Your task to perform on an android device: turn pop-ups on in chrome Image 0: 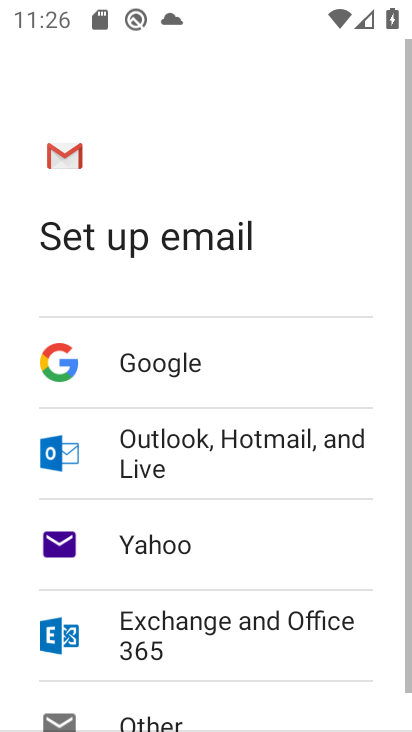
Step 0: press home button
Your task to perform on an android device: turn pop-ups on in chrome Image 1: 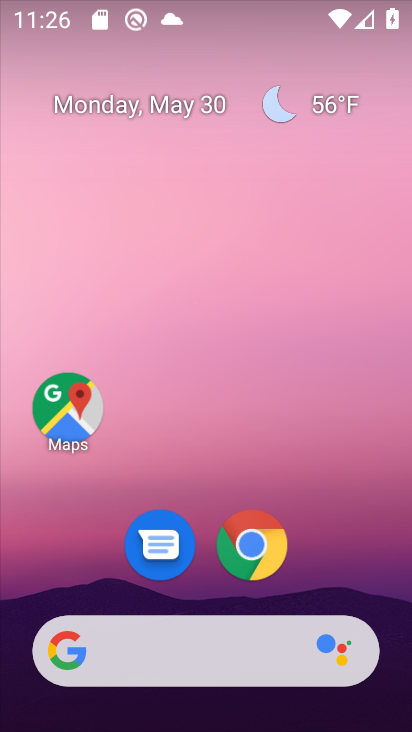
Step 1: click (277, 564)
Your task to perform on an android device: turn pop-ups on in chrome Image 2: 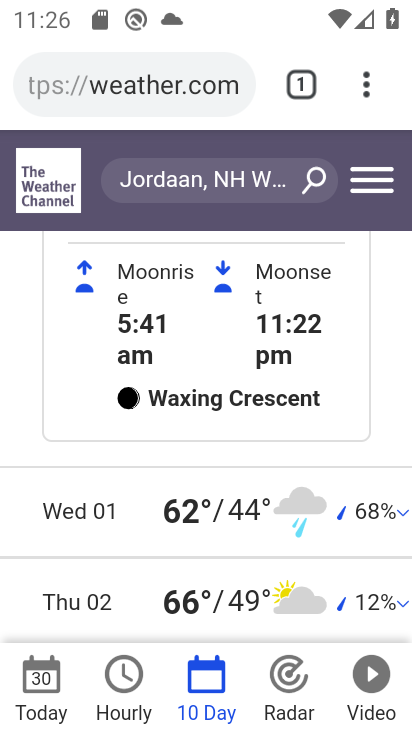
Step 2: drag from (380, 113) to (254, 615)
Your task to perform on an android device: turn pop-ups on in chrome Image 3: 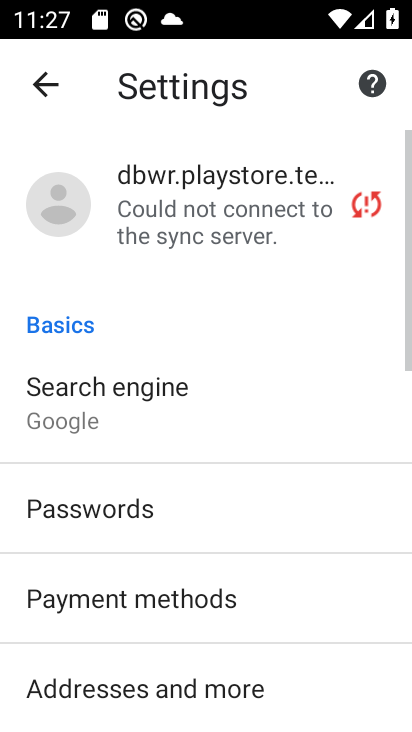
Step 3: drag from (254, 615) to (312, 249)
Your task to perform on an android device: turn pop-ups on in chrome Image 4: 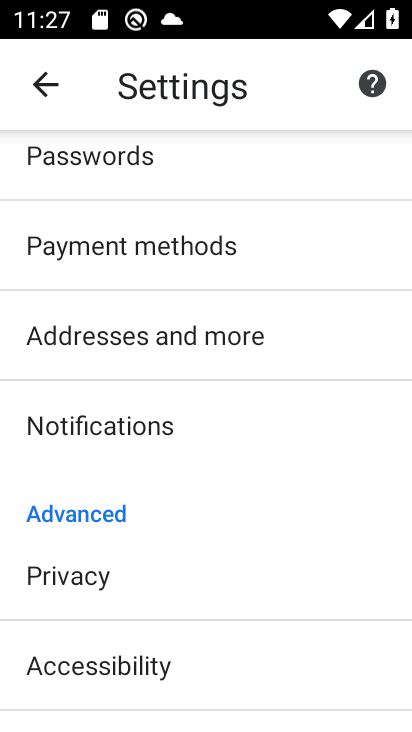
Step 4: drag from (186, 637) to (291, 282)
Your task to perform on an android device: turn pop-ups on in chrome Image 5: 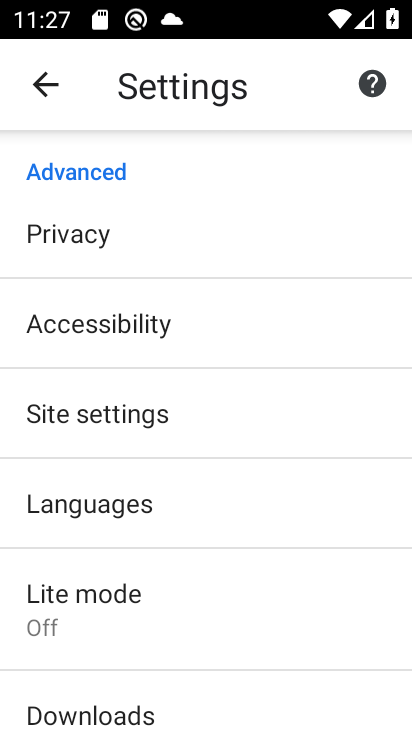
Step 5: click (223, 418)
Your task to perform on an android device: turn pop-ups on in chrome Image 6: 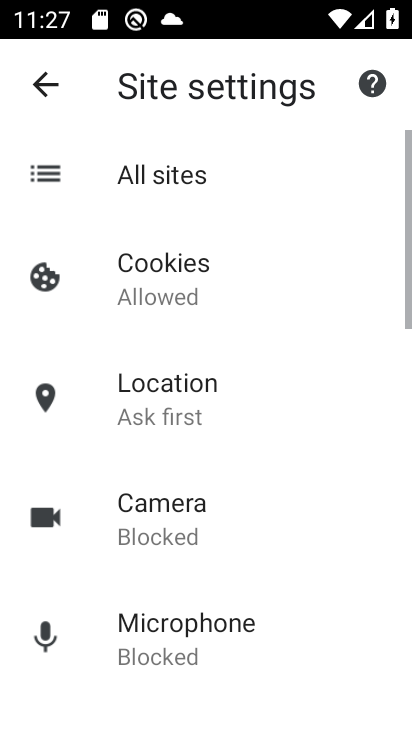
Step 6: drag from (157, 595) to (292, 172)
Your task to perform on an android device: turn pop-ups on in chrome Image 7: 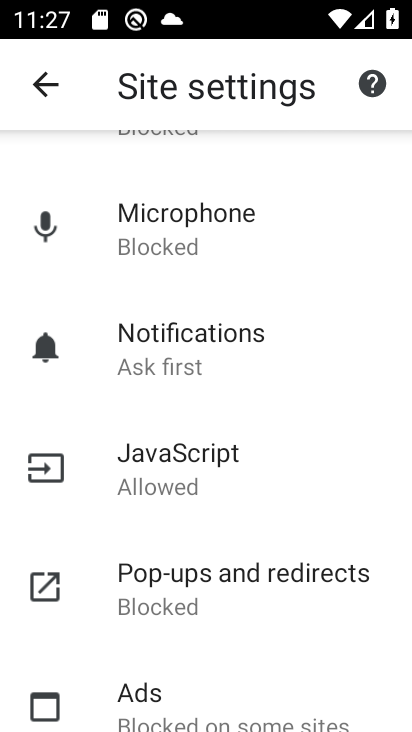
Step 7: click (211, 615)
Your task to perform on an android device: turn pop-ups on in chrome Image 8: 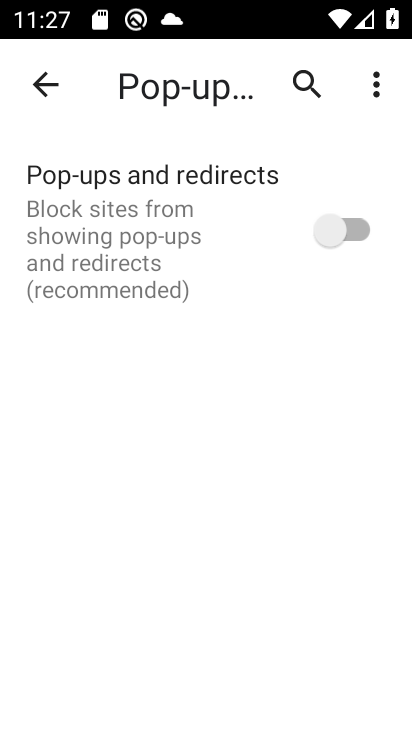
Step 8: click (381, 225)
Your task to perform on an android device: turn pop-ups on in chrome Image 9: 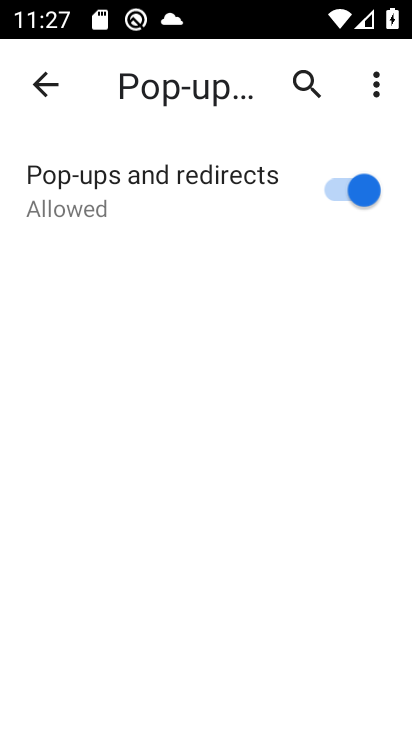
Step 9: task complete